Your task to perform on an android device: turn on data saver in the chrome app Image 0: 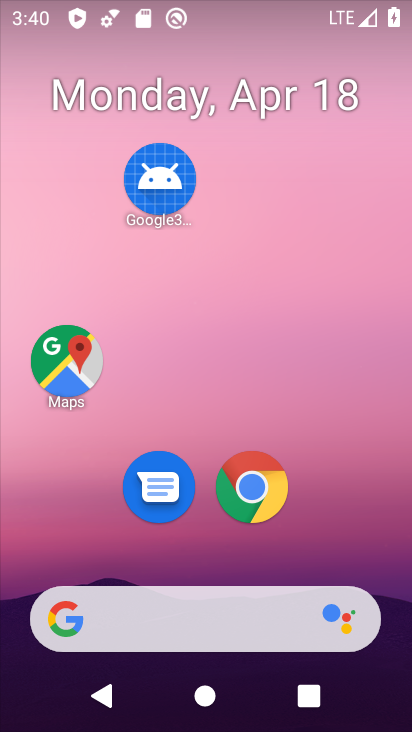
Step 0: drag from (220, 587) to (214, 34)
Your task to perform on an android device: turn on data saver in the chrome app Image 1: 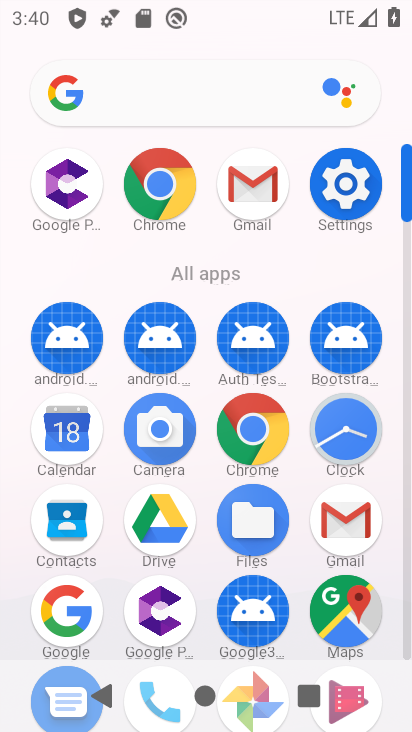
Step 1: click (162, 191)
Your task to perform on an android device: turn on data saver in the chrome app Image 2: 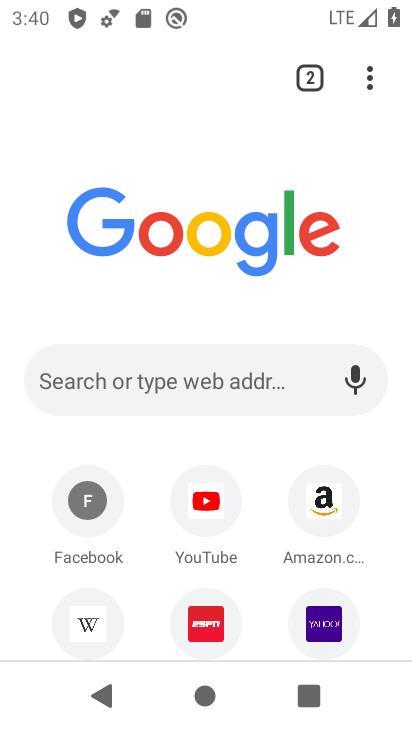
Step 2: drag from (360, 79) to (200, 552)
Your task to perform on an android device: turn on data saver in the chrome app Image 3: 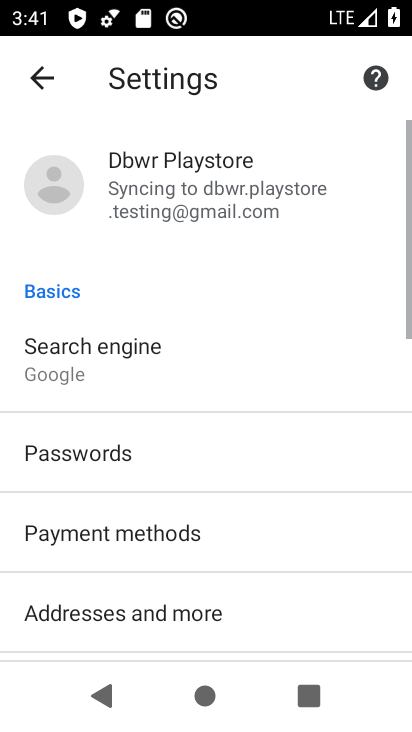
Step 3: drag from (200, 552) to (171, 147)
Your task to perform on an android device: turn on data saver in the chrome app Image 4: 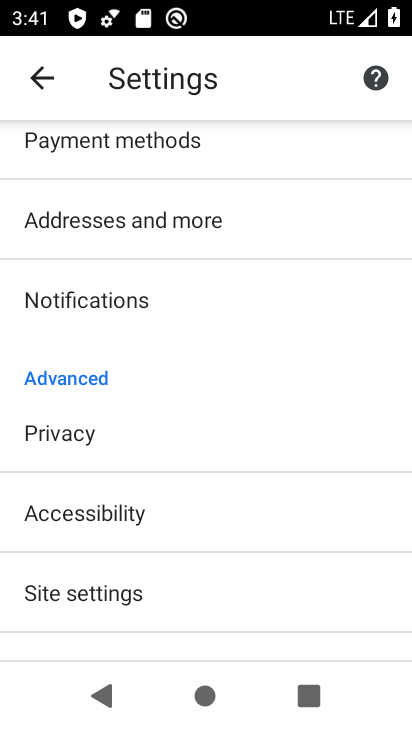
Step 4: drag from (115, 608) to (130, 200)
Your task to perform on an android device: turn on data saver in the chrome app Image 5: 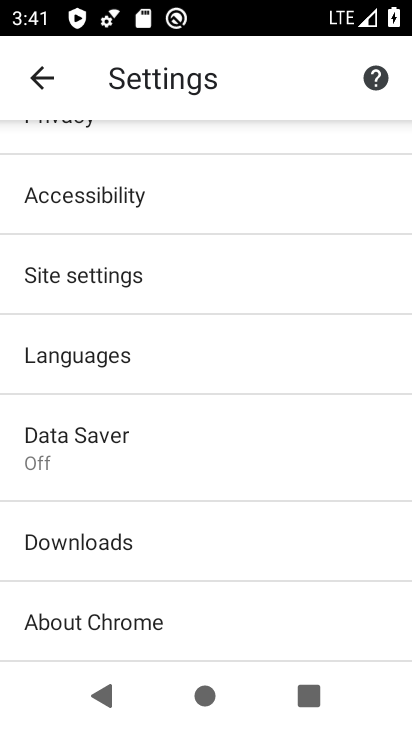
Step 5: click (99, 450)
Your task to perform on an android device: turn on data saver in the chrome app Image 6: 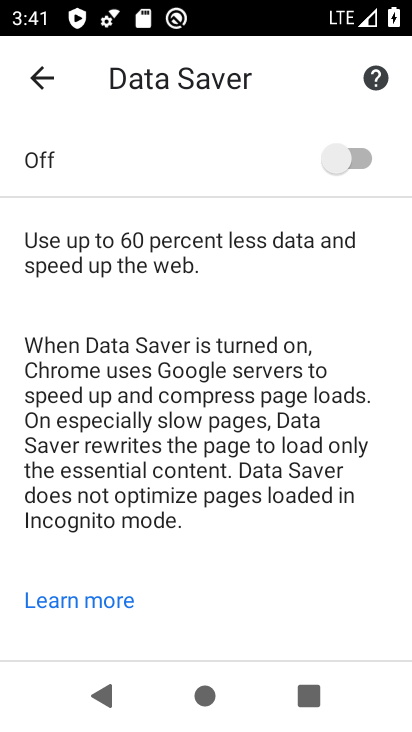
Step 6: click (351, 155)
Your task to perform on an android device: turn on data saver in the chrome app Image 7: 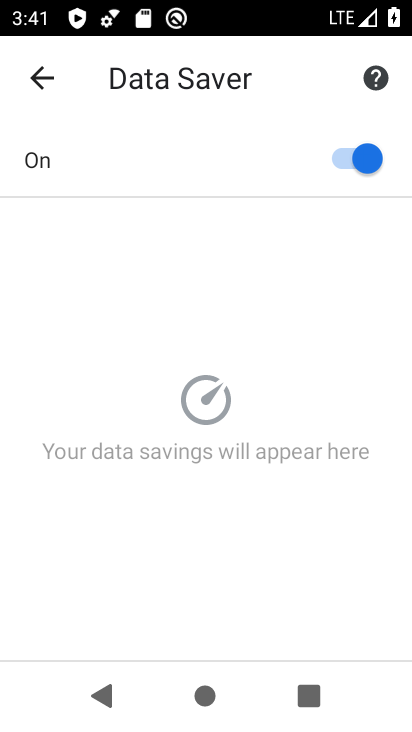
Step 7: task complete